Your task to perform on an android device: Go to internet settings Image 0: 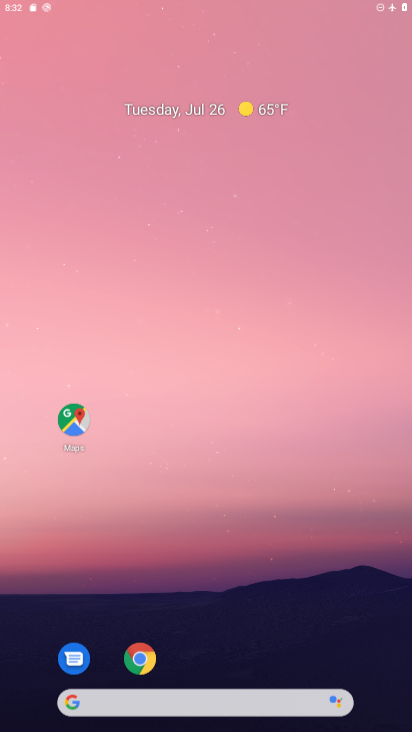
Step 0: press home button
Your task to perform on an android device: Go to internet settings Image 1: 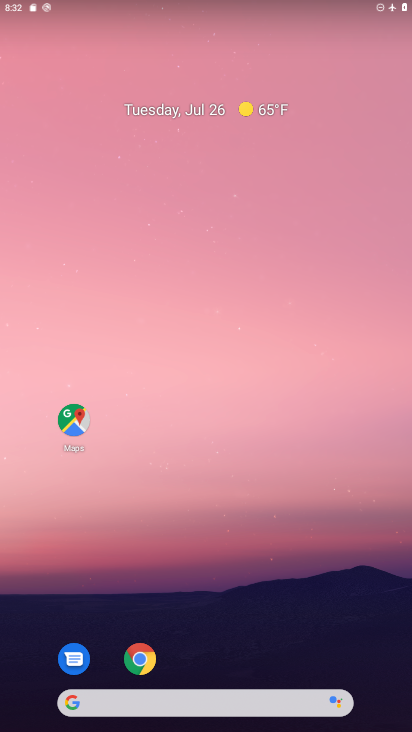
Step 1: drag from (176, 497) to (175, 10)
Your task to perform on an android device: Go to internet settings Image 2: 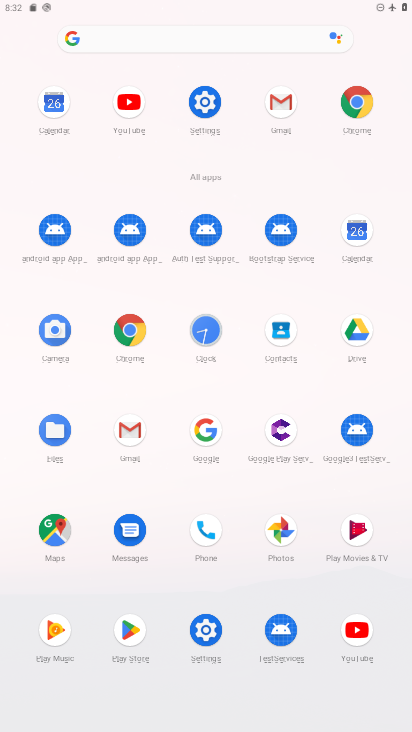
Step 2: click (211, 101)
Your task to perform on an android device: Go to internet settings Image 3: 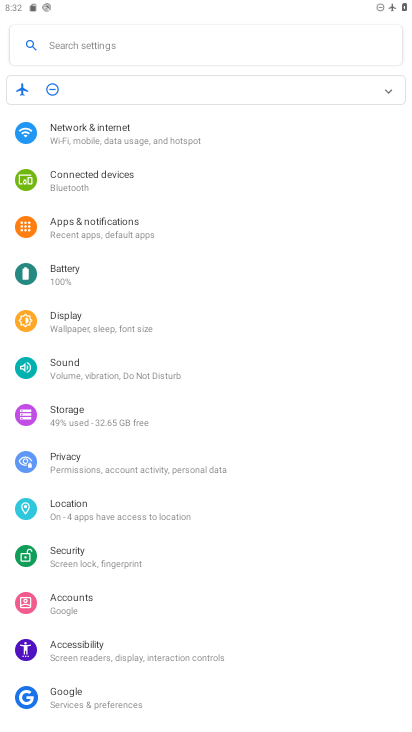
Step 3: click (130, 142)
Your task to perform on an android device: Go to internet settings Image 4: 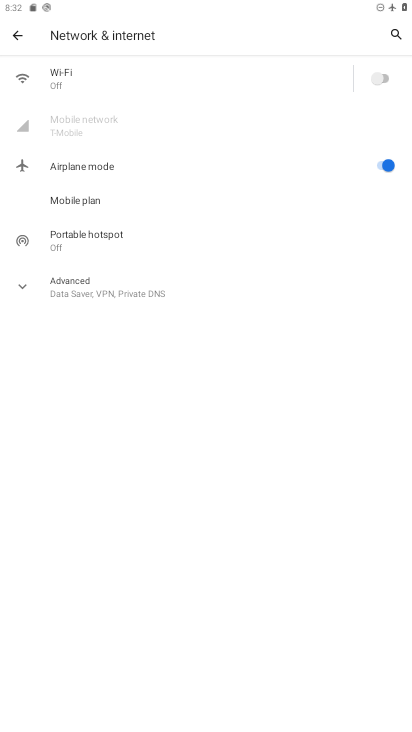
Step 4: task complete